Your task to perform on an android device: change keyboard looks Image 0: 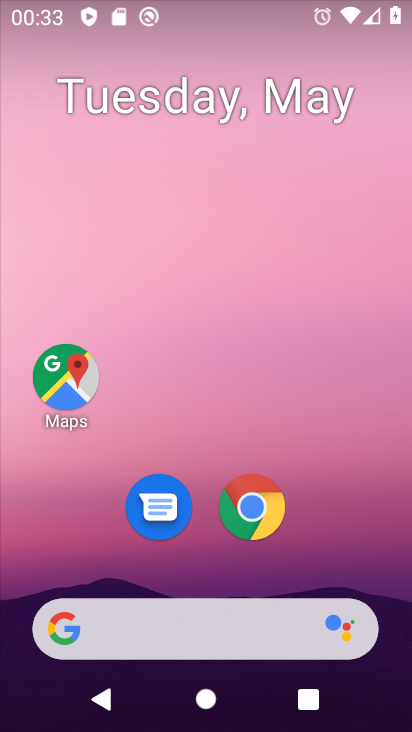
Step 0: drag from (225, 594) to (204, 192)
Your task to perform on an android device: change keyboard looks Image 1: 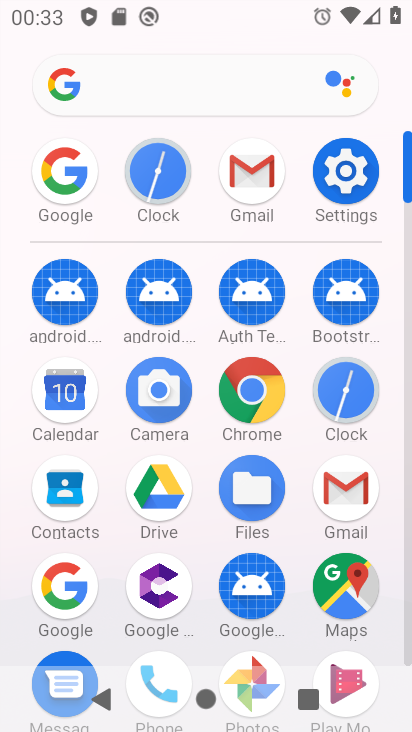
Step 1: click (332, 174)
Your task to perform on an android device: change keyboard looks Image 2: 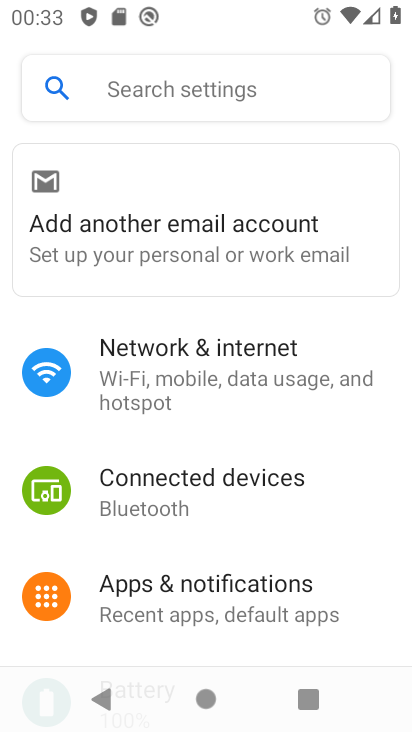
Step 2: drag from (199, 634) to (199, 282)
Your task to perform on an android device: change keyboard looks Image 3: 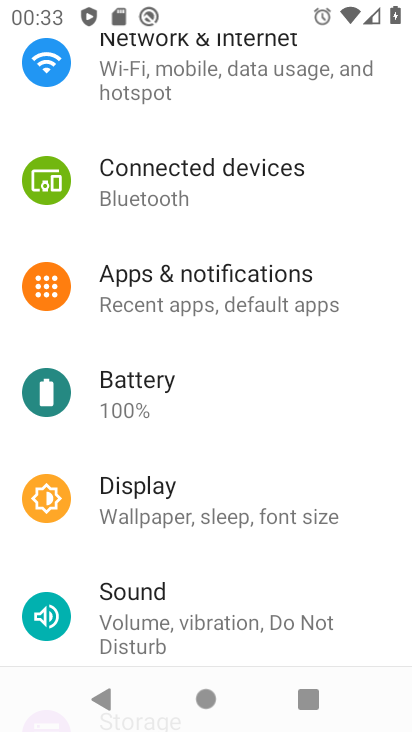
Step 3: drag from (234, 637) to (247, 346)
Your task to perform on an android device: change keyboard looks Image 4: 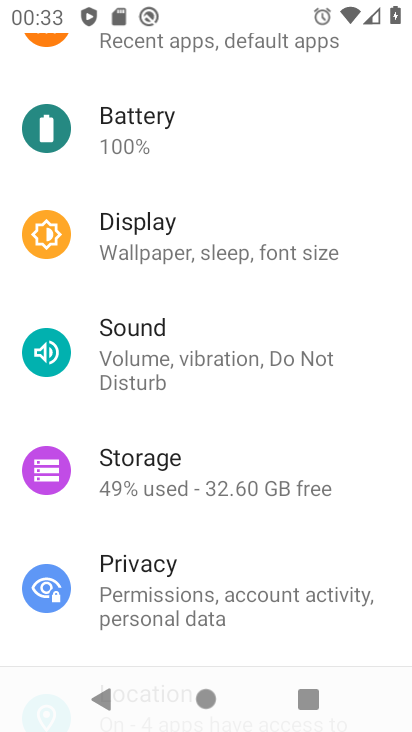
Step 4: drag from (182, 612) to (163, 339)
Your task to perform on an android device: change keyboard looks Image 5: 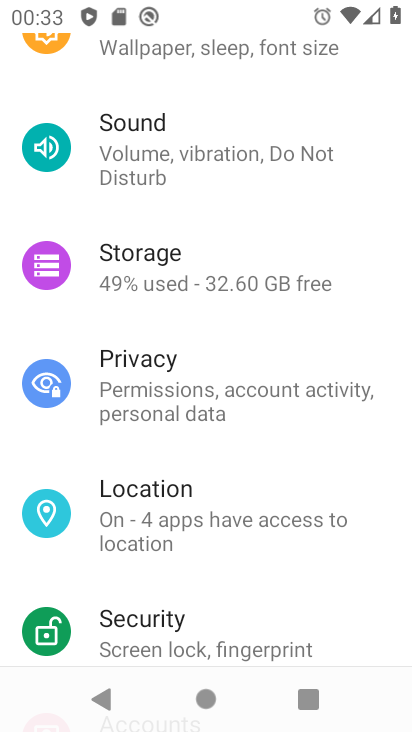
Step 5: drag from (174, 632) to (173, 368)
Your task to perform on an android device: change keyboard looks Image 6: 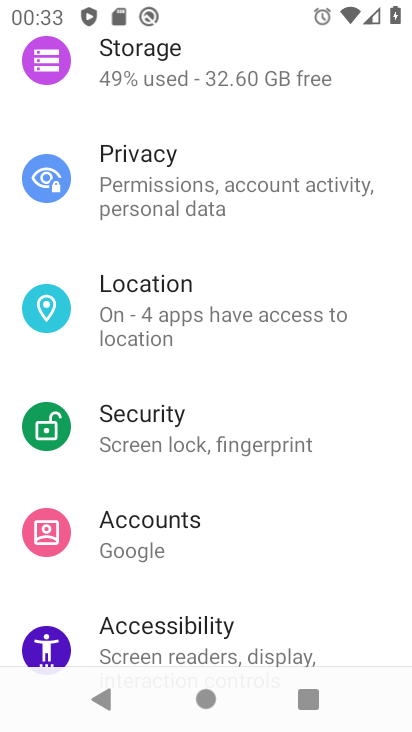
Step 6: drag from (161, 640) to (193, 350)
Your task to perform on an android device: change keyboard looks Image 7: 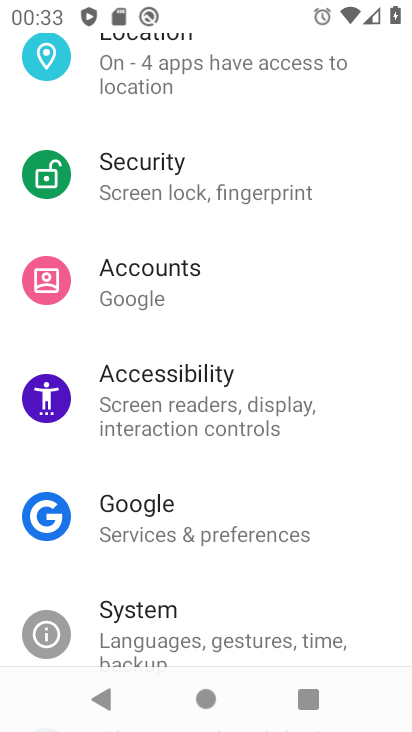
Step 7: click (144, 634)
Your task to perform on an android device: change keyboard looks Image 8: 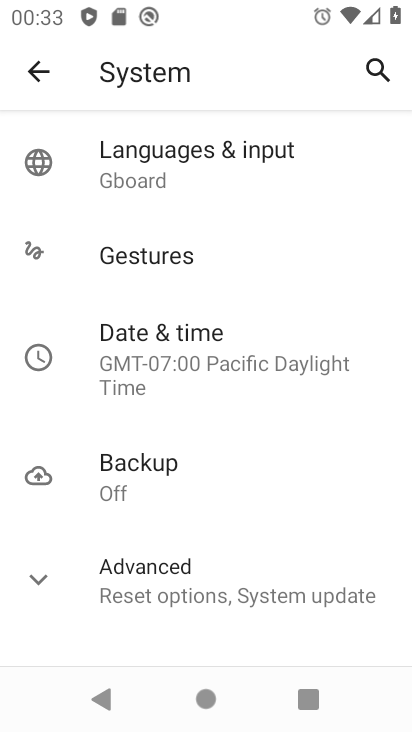
Step 8: click (172, 158)
Your task to perform on an android device: change keyboard looks Image 9: 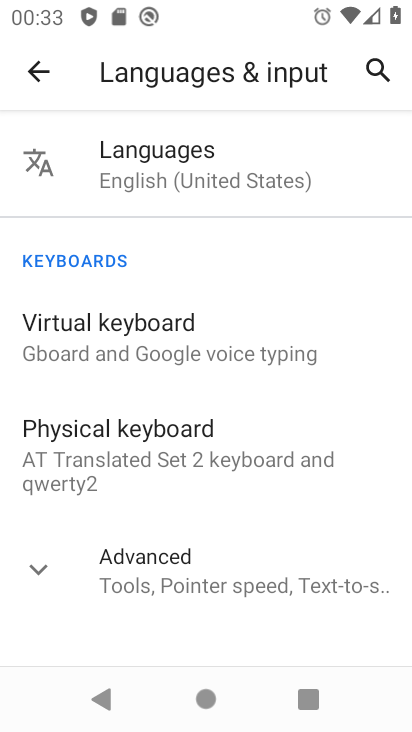
Step 9: click (93, 344)
Your task to perform on an android device: change keyboard looks Image 10: 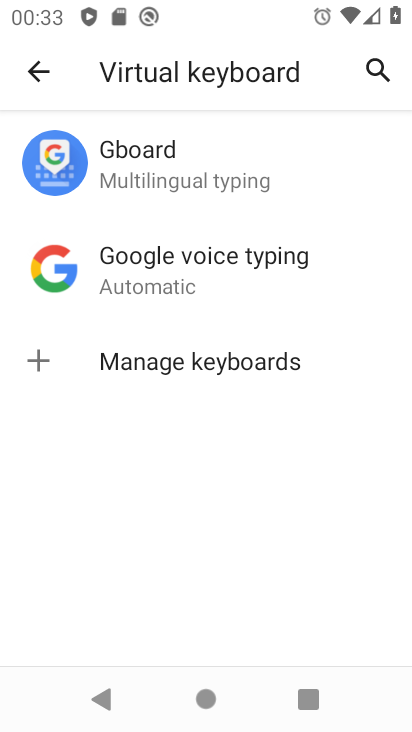
Step 10: click (160, 150)
Your task to perform on an android device: change keyboard looks Image 11: 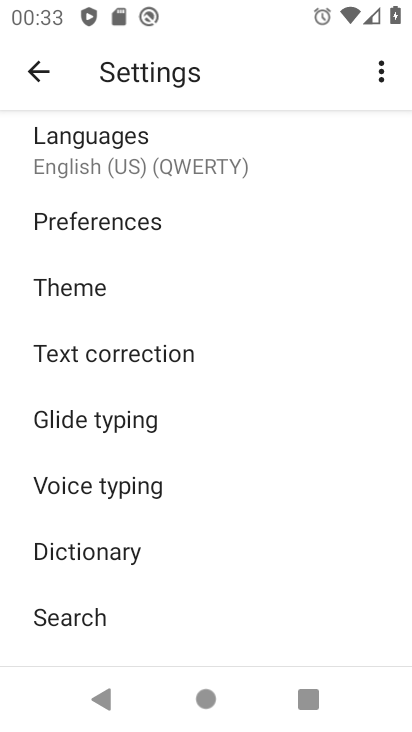
Step 11: click (65, 283)
Your task to perform on an android device: change keyboard looks Image 12: 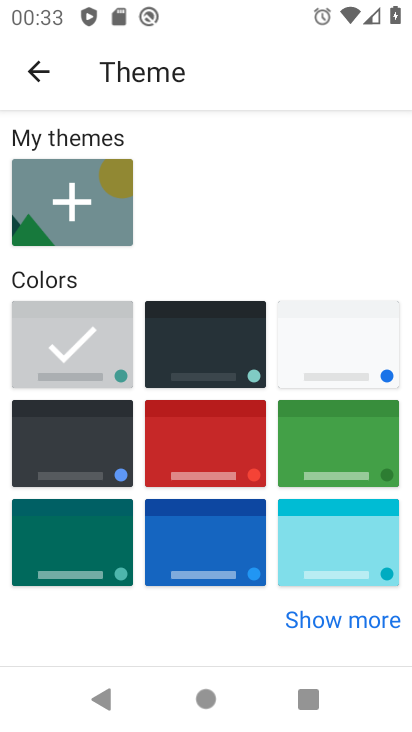
Step 12: click (217, 348)
Your task to perform on an android device: change keyboard looks Image 13: 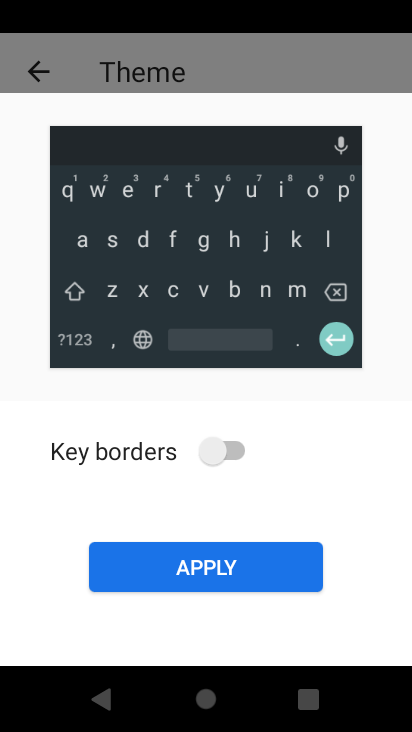
Step 13: click (205, 577)
Your task to perform on an android device: change keyboard looks Image 14: 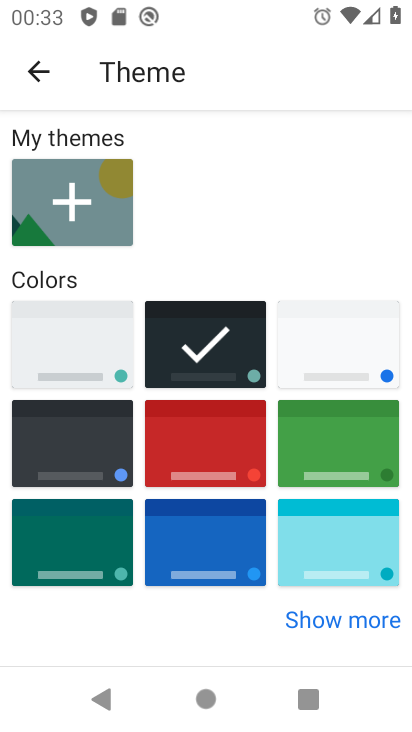
Step 14: task complete